Your task to perform on an android device: add a label to a message in the gmail app Image 0: 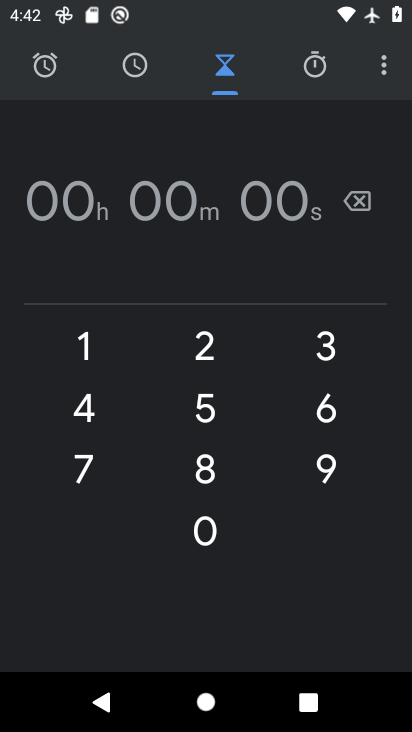
Step 0: press home button
Your task to perform on an android device: add a label to a message in the gmail app Image 1: 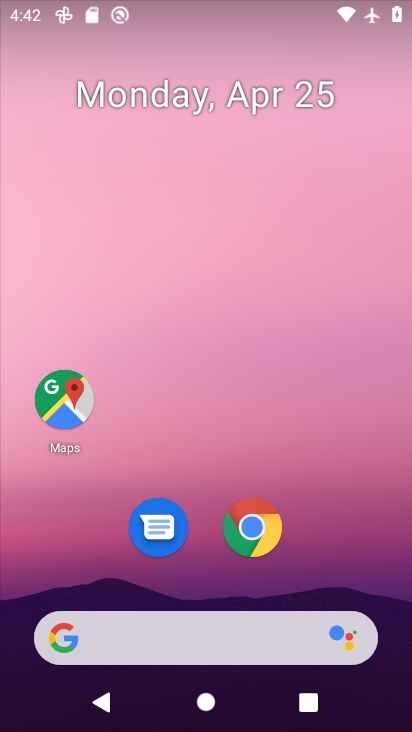
Step 1: drag from (394, 632) to (315, 26)
Your task to perform on an android device: add a label to a message in the gmail app Image 2: 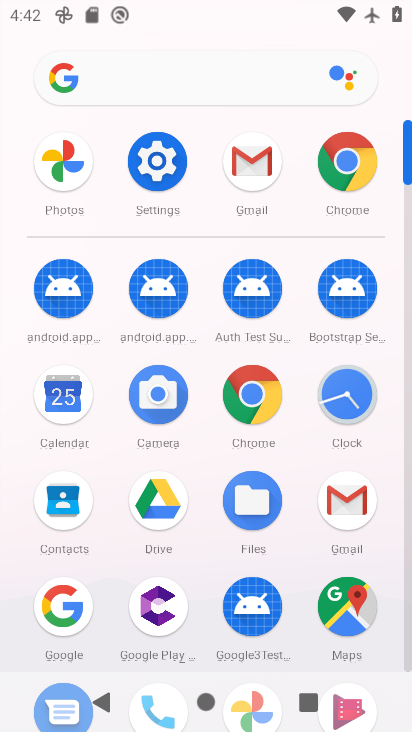
Step 2: click (406, 663)
Your task to perform on an android device: add a label to a message in the gmail app Image 3: 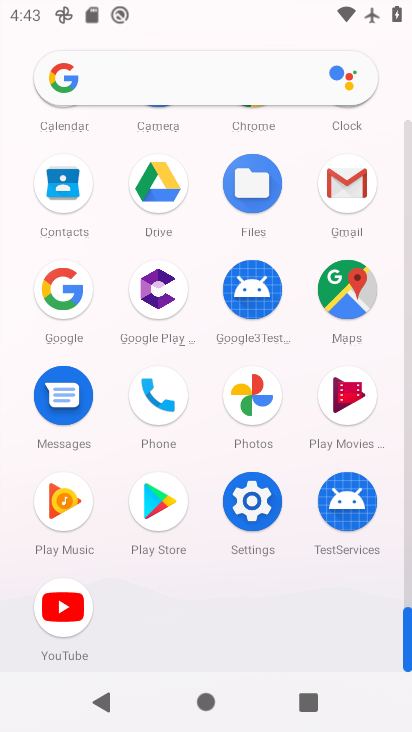
Step 3: click (339, 185)
Your task to perform on an android device: add a label to a message in the gmail app Image 4: 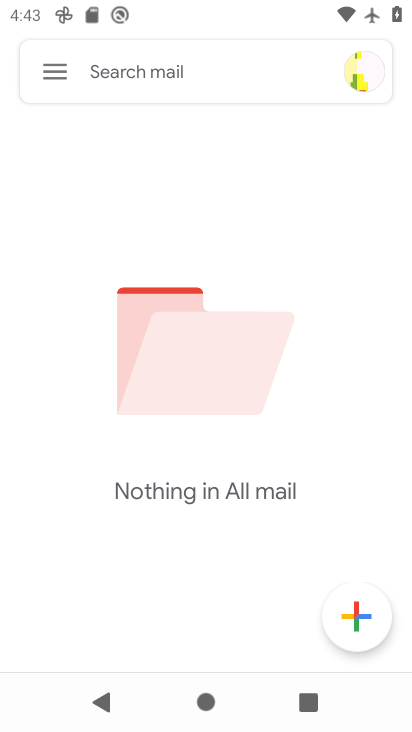
Step 4: click (50, 70)
Your task to perform on an android device: add a label to a message in the gmail app Image 5: 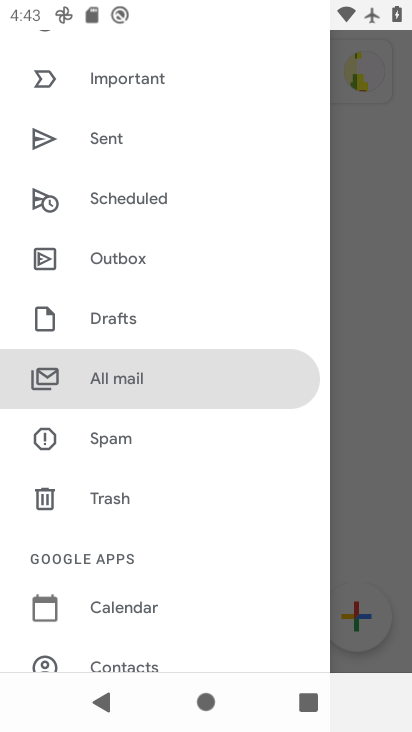
Step 5: click (193, 378)
Your task to perform on an android device: add a label to a message in the gmail app Image 6: 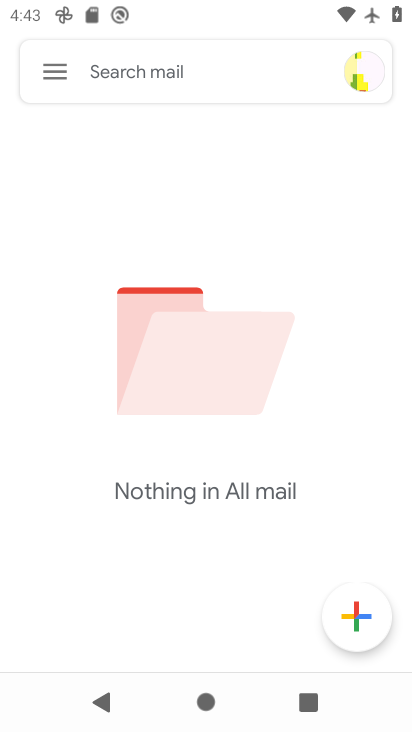
Step 6: task complete